Your task to perform on an android device: What is the speed of a bicycle? Image 0: 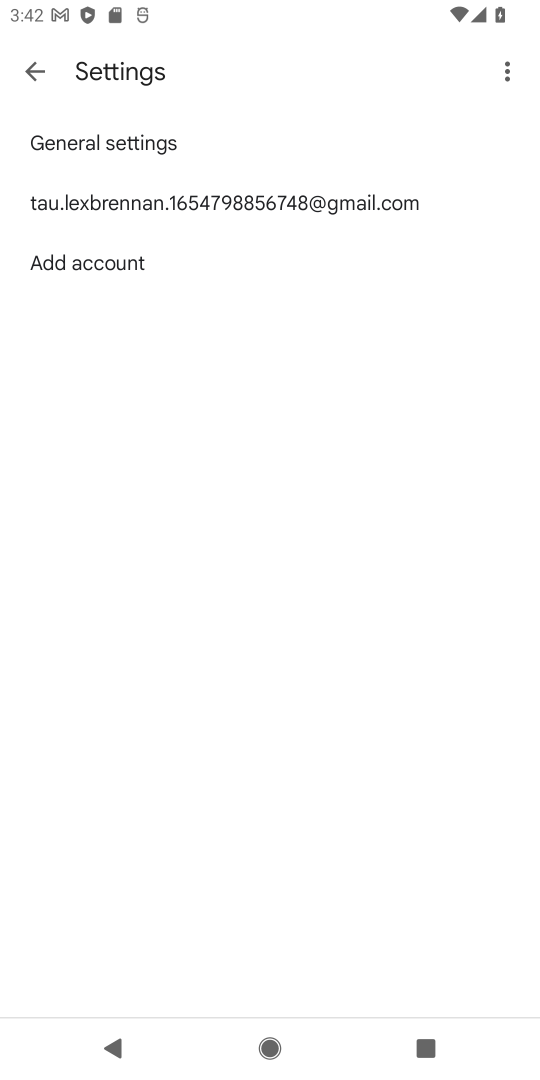
Step 0: press home button
Your task to perform on an android device: What is the speed of a bicycle? Image 1: 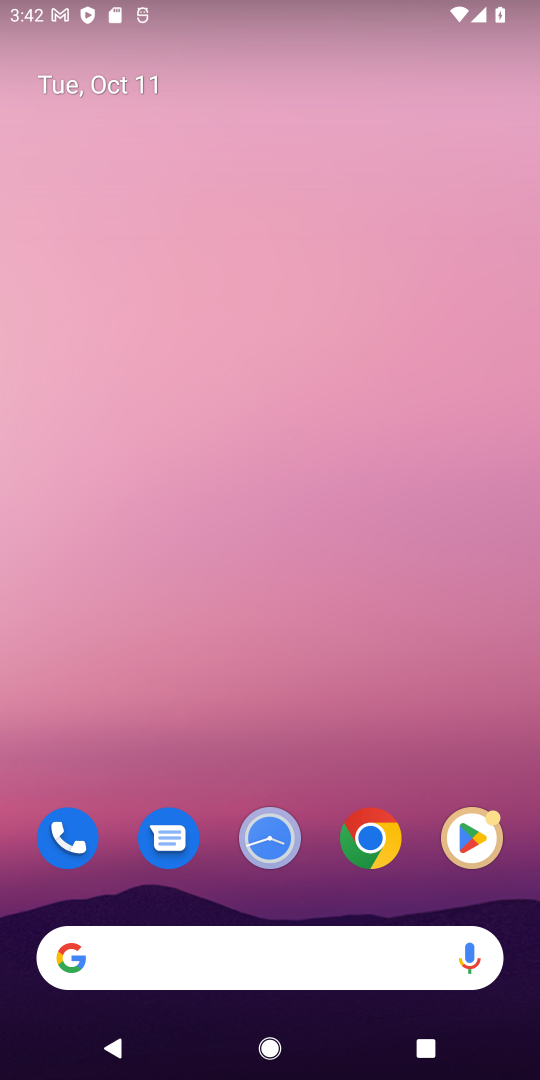
Step 1: click (231, 982)
Your task to perform on an android device: What is the speed of a bicycle? Image 2: 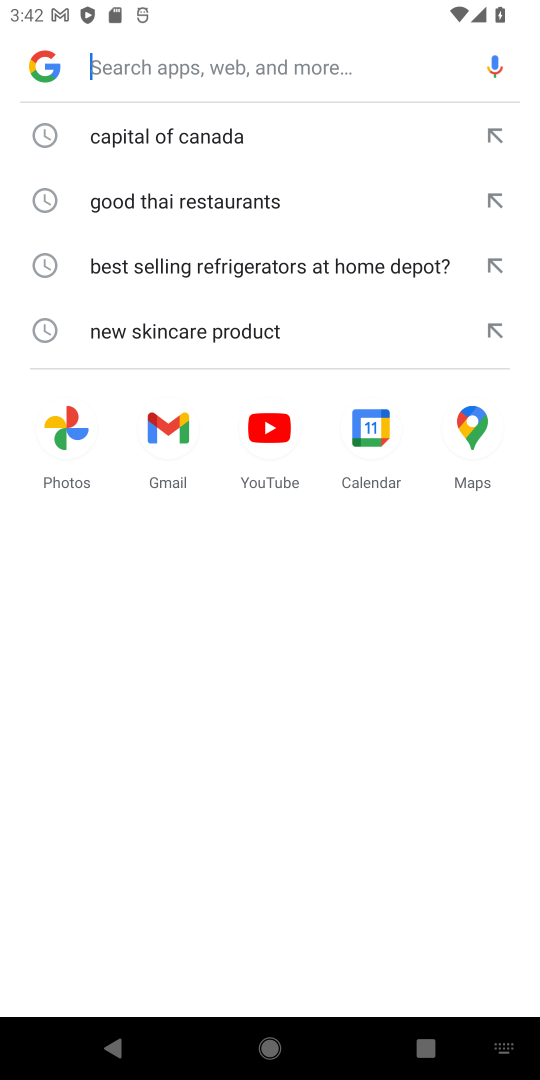
Step 2: click (167, 48)
Your task to perform on an android device: What is the speed of a bicycle? Image 3: 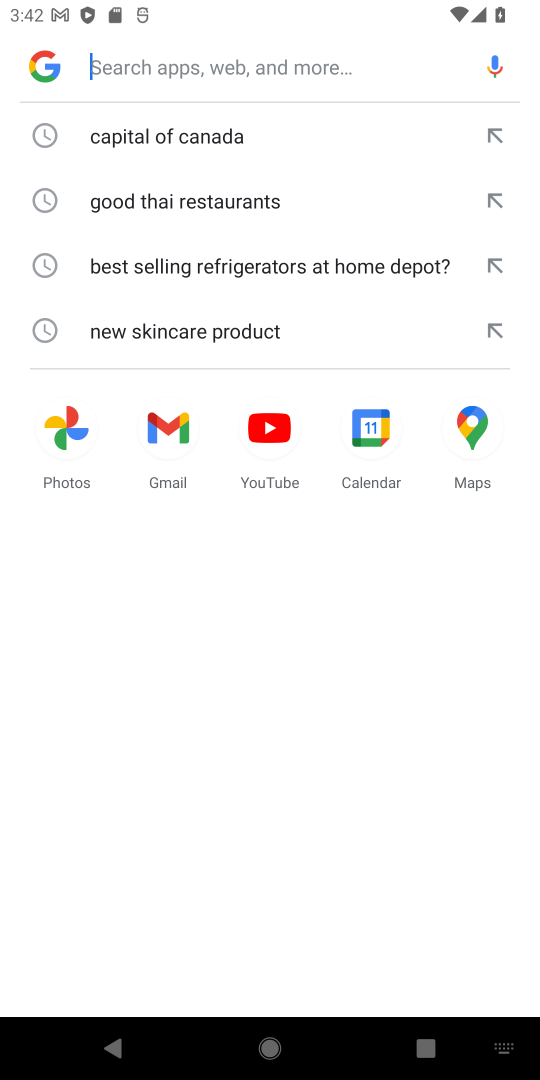
Step 3: type "What is the speed of a bicycle?"
Your task to perform on an android device: What is the speed of a bicycle? Image 4: 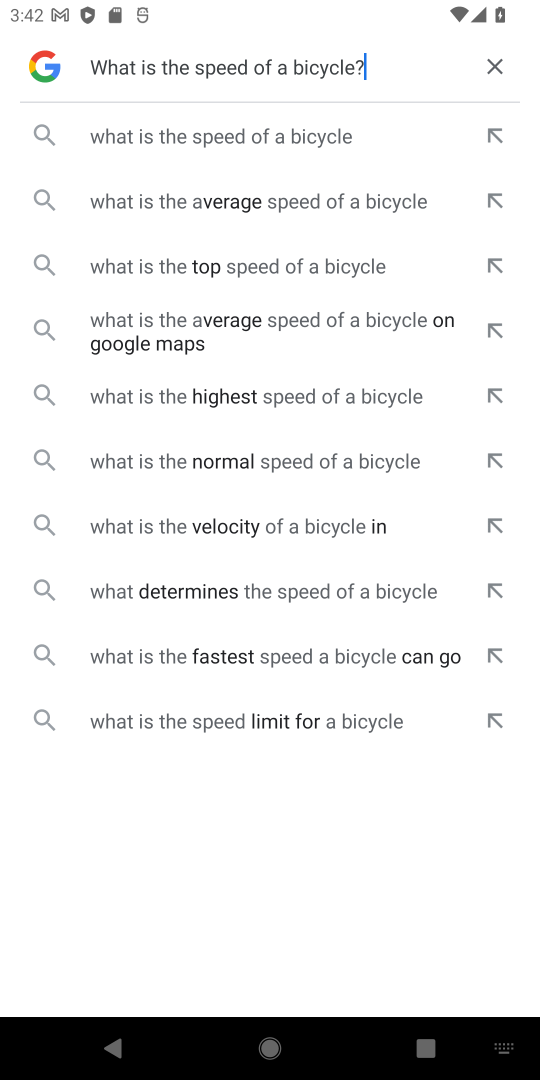
Step 4: click (189, 146)
Your task to perform on an android device: What is the speed of a bicycle? Image 5: 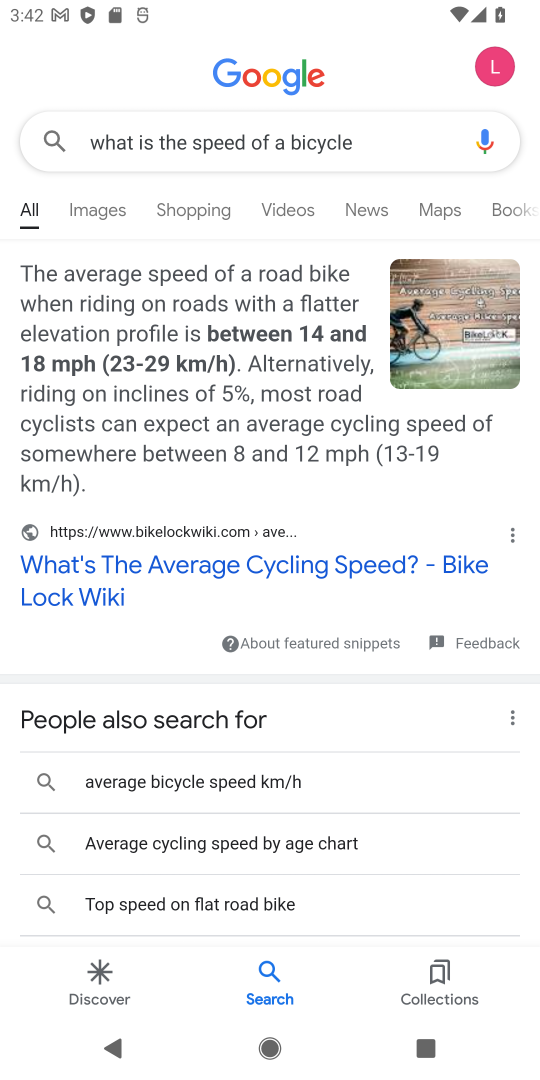
Step 5: task complete